Your task to perform on an android device: turn off translation in the chrome app Image 0: 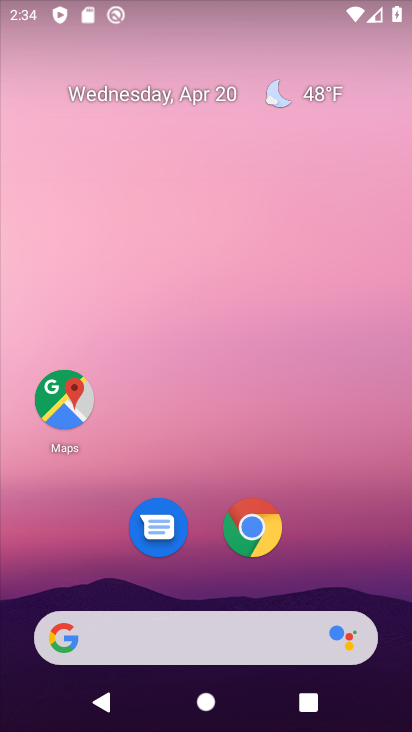
Step 0: click (255, 538)
Your task to perform on an android device: turn off translation in the chrome app Image 1: 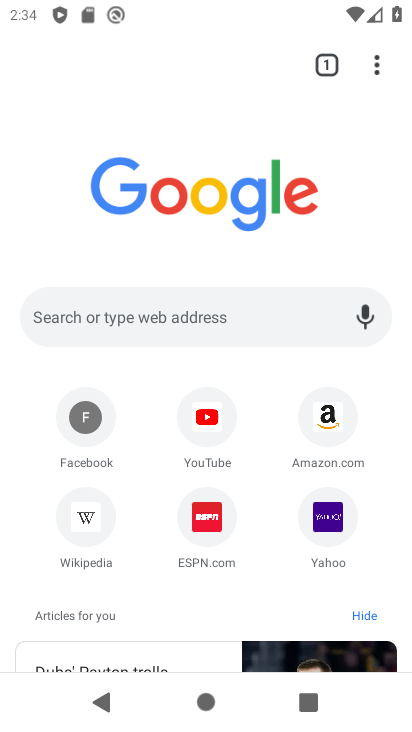
Step 1: click (394, 55)
Your task to perform on an android device: turn off translation in the chrome app Image 2: 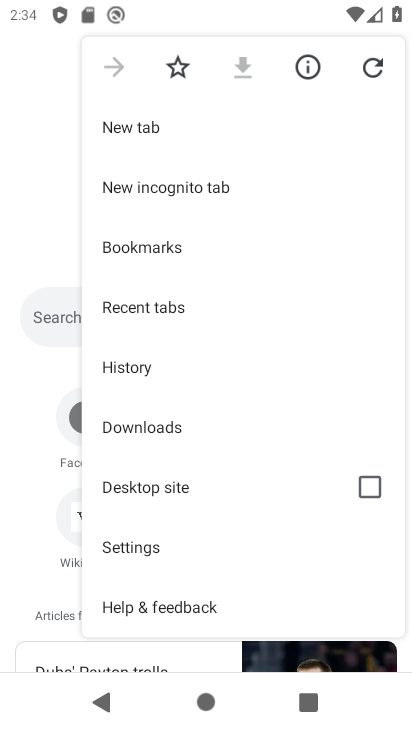
Step 2: click (126, 561)
Your task to perform on an android device: turn off translation in the chrome app Image 3: 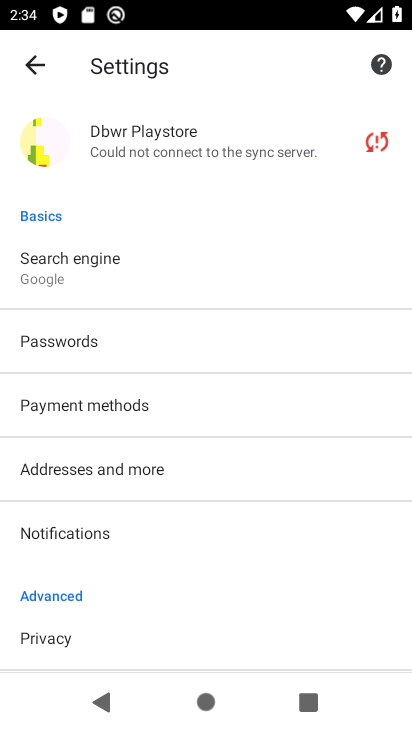
Step 3: drag from (66, 615) to (108, 102)
Your task to perform on an android device: turn off translation in the chrome app Image 4: 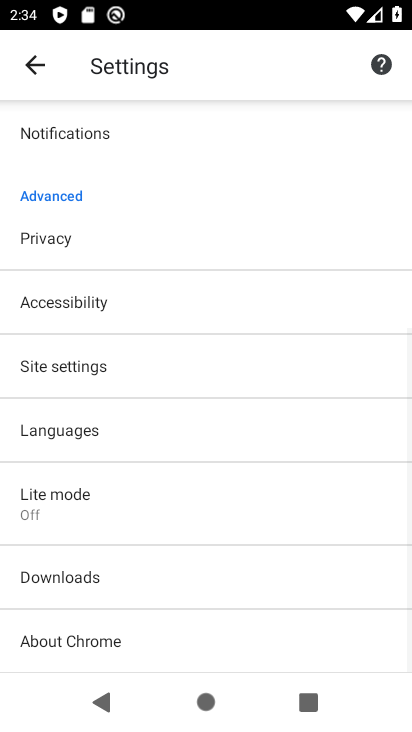
Step 4: click (43, 435)
Your task to perform on an android device: turn off translation in the chrome app Image 5: 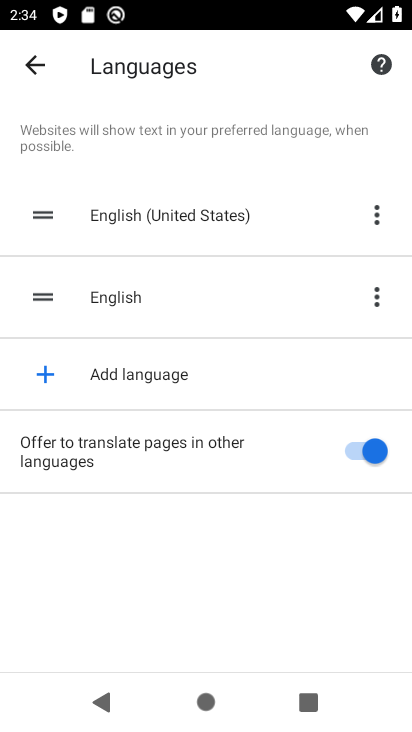
Step 5: click (351, 464)
Your task to perform on an android device: turn off translation in the chrome app Image 6: 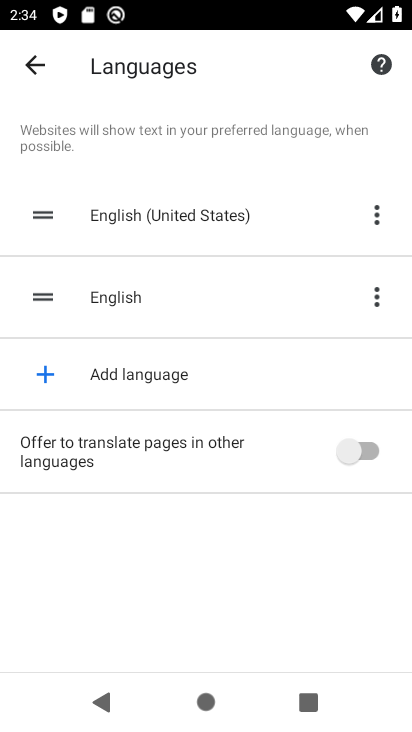
Step 6: task complete